Your task to perform on an android device: toggle notifications settings in the gmail app Image 0: 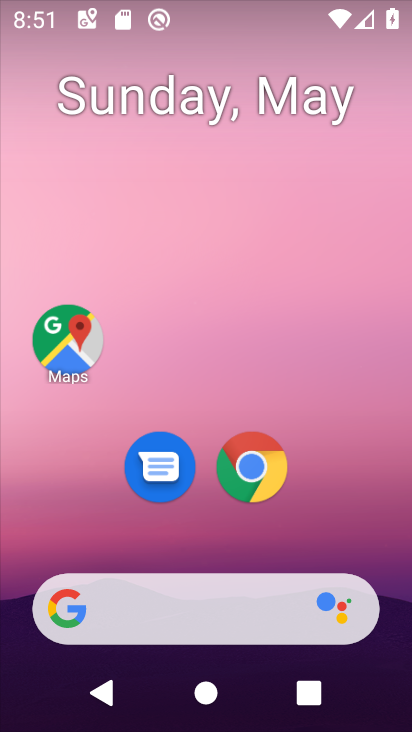
Step 0: drag from (367, 497) to (350, 76)
Your task to perform on an android device: toggle notifications settings in the gmail app Image 1: 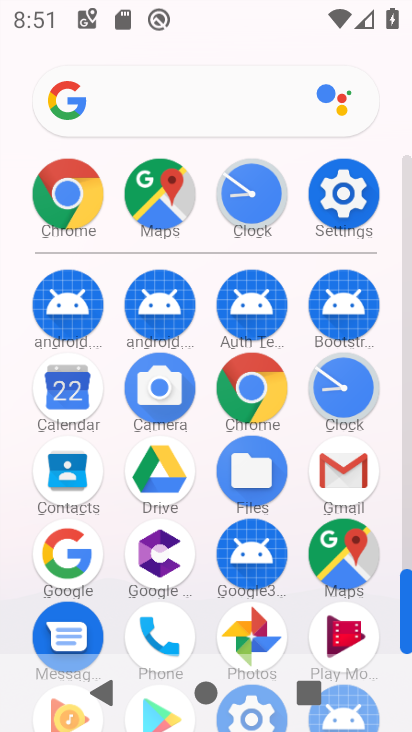
Step 1: click (323, 491)
Your task to perform on an android device: toggle notifications settings in the gmail app Image 2: 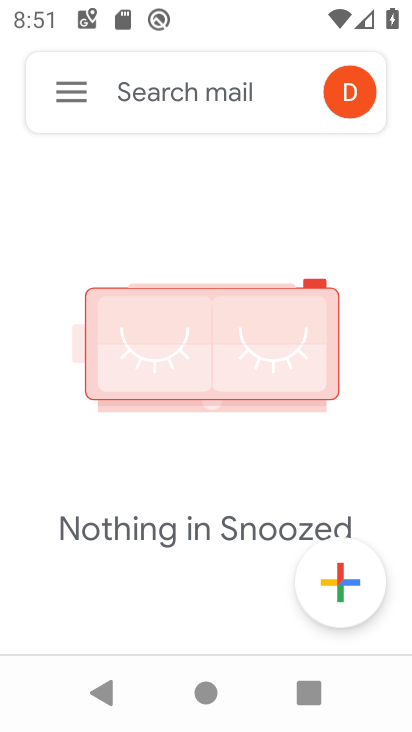
Step 2: click (66, 94)
Your task to perform on an android device: toggle notifications settings in the gmail app Image 3: 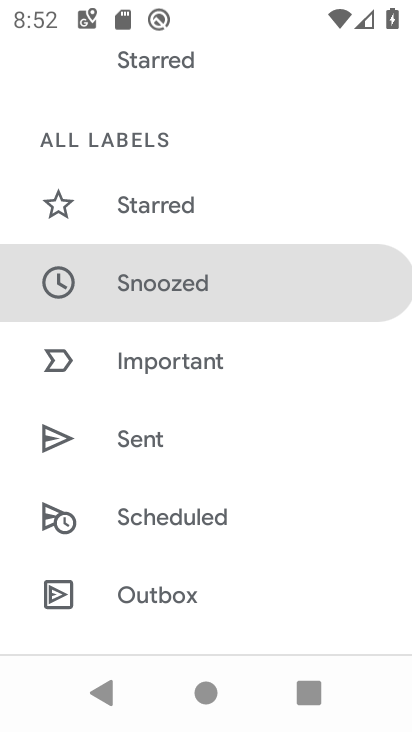
Step 3: drag from (240, 593) to (349, 198)
Your task to perform on an android device: toggle notifications settings in the gmail app Image 4: 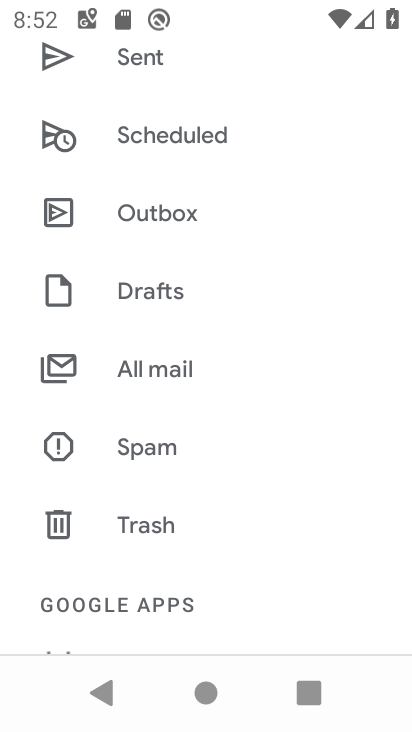
Step 4: drag from (293, 572) to (318, 172)
Your task to perform on an android device: toggle notifications settings in the gmail app Image 5: 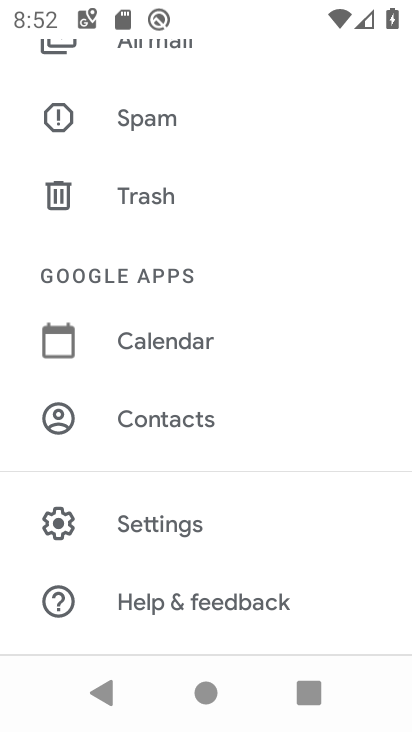
Step 5: click (211, 537)
Your task to perform on an android device: toggle notifications settings in the gmail app Image 6: 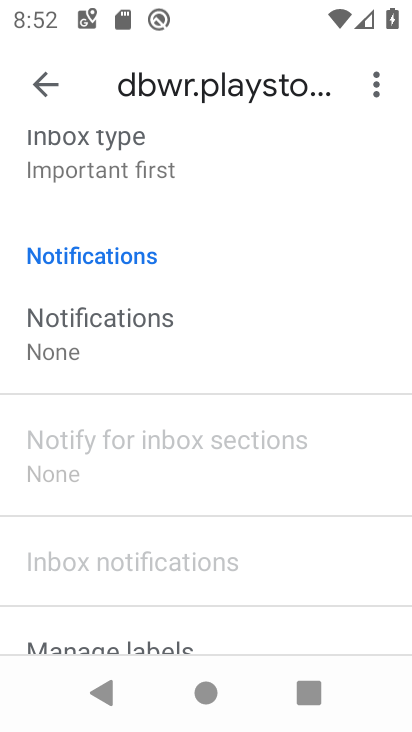
Step 6: click (100, 315)
Your task to perform on an android device: toggle notifications settings in the gmail app Image 7: 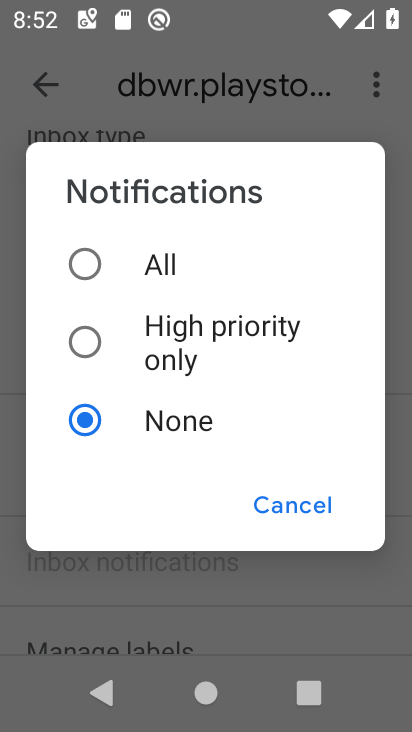
Step 7: click (88, 265)
Your task to perform on an android device: toggle notifications settings in the gmail app Image 8: 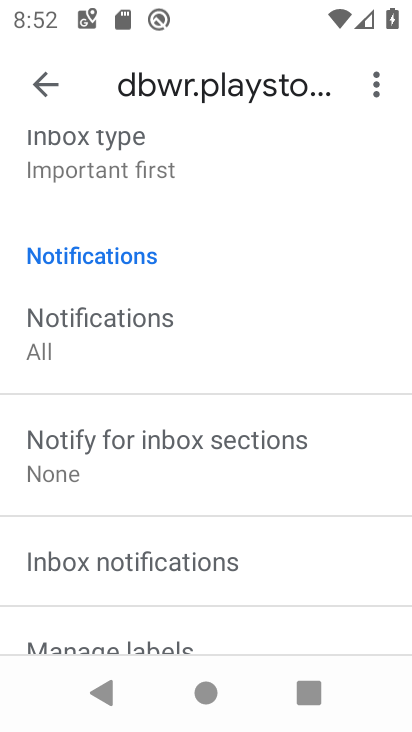
Step 8: task complete